Your task to perform on an android device: Open the calendar app, open the side menu, and click the "Day" option Image 0: 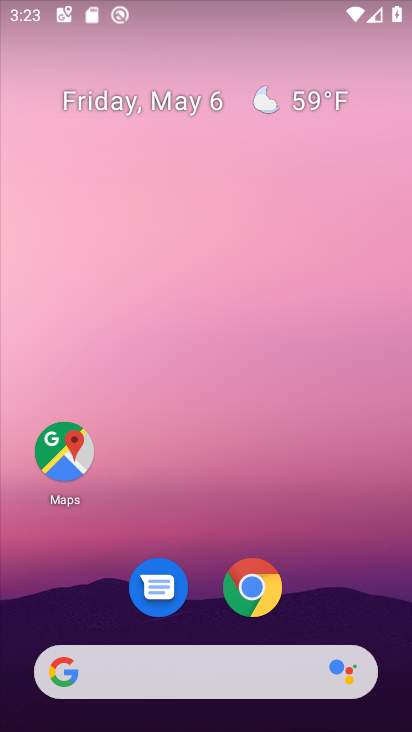
Step 0: drag from (308, 536) to (235, 59)
Your task to perform on an android device: Open the calendar app, open the side menu, and click the "Day" option Image 1: 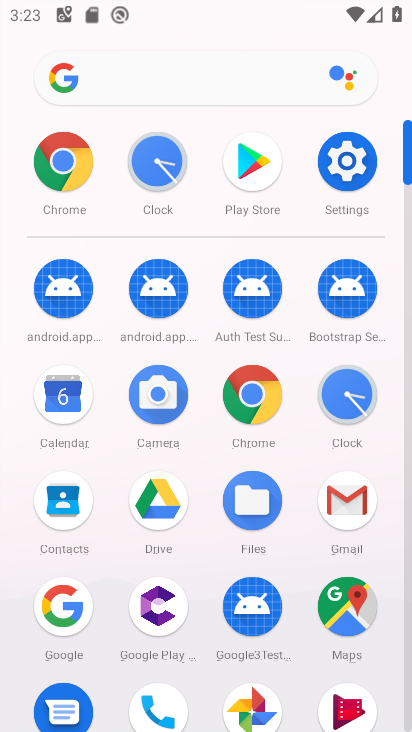
Step 1: click (73, 400)
Your task to perform on an android device: Open the calendar app, open the side menu, and click the "Day" option Image 2: 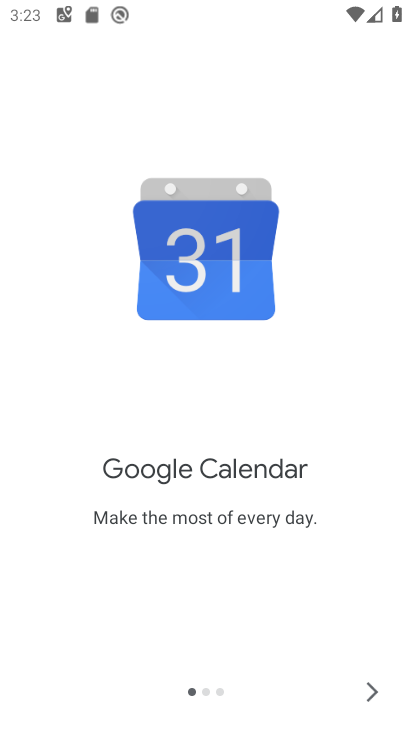
Step 2: click (368, 686)
Your task to perform on an android device: Open the calendar app, open the side menu, and click the "Day" option Image 3: 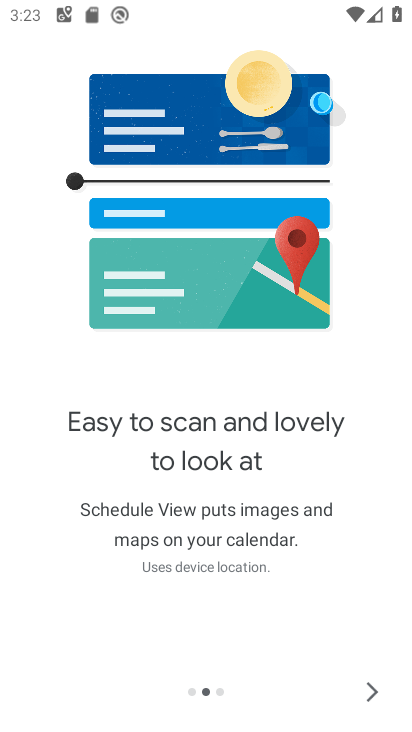
Step 3: click (366, 685)
Your task to perform on an android device: Open the calendar app, open the side menu, and click the "Day" option Image 4: 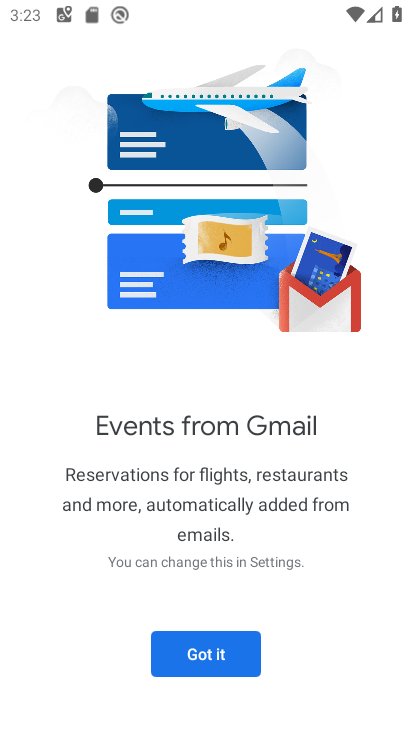
Step 4: click (237, 648)
Your task to perform on an android device: Open the calendar app, open the side menu, and click the "Day" option Image 5: 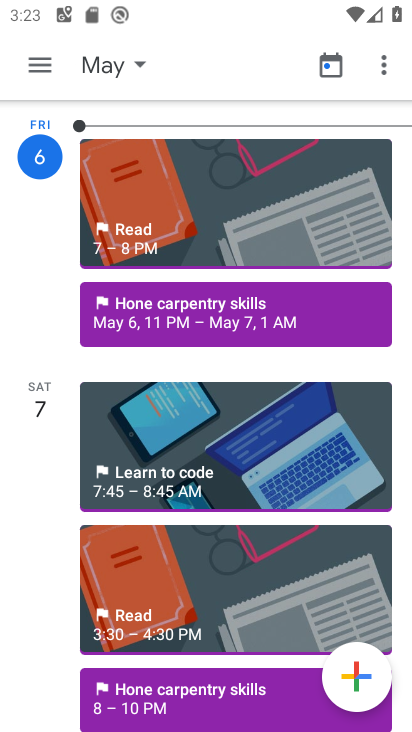
Step 5: click (40, 62)
Your task to perform on an android device: Open the calendar app, open the side menu, and click the "Day" option Image 6: 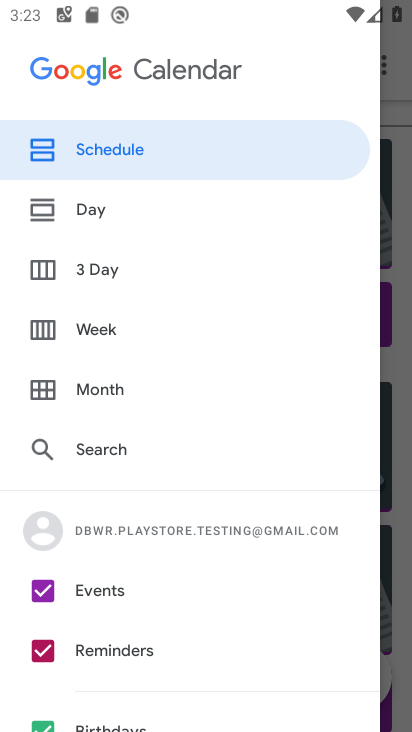
Step 6: click (39, 211)
Your task to perform on an android device: Open the calendar app, open the side menu, and click the "Day" option Image 7: 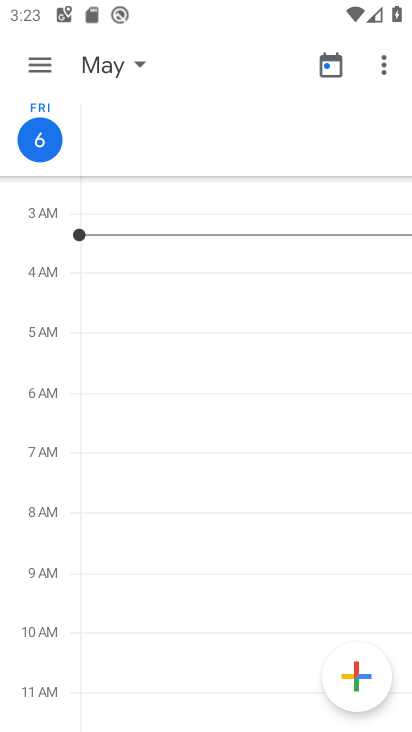
Step 7: task complete